Your task to perform on an android device: turn on wifi Image 0: 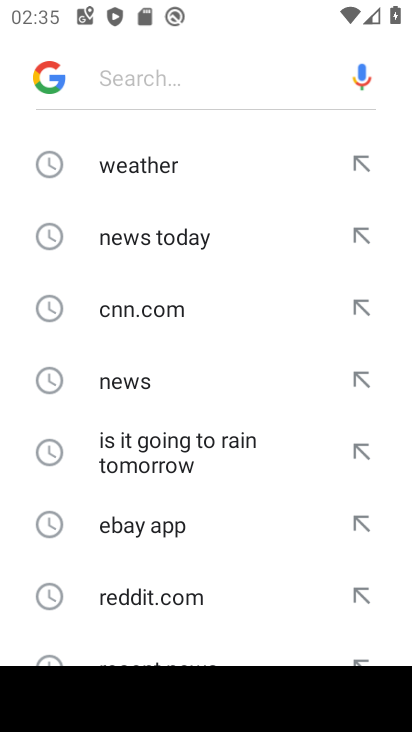
Step 0: press home button
Your task to perform on an android device: turn on wifi Image 1: 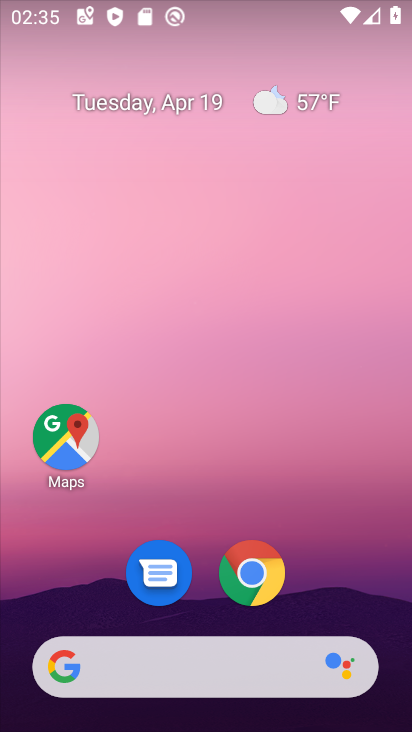
Step 1: drag from (308, 434) to (336, 20)
Your task to perform on an android device: turn on wifi Image 2: 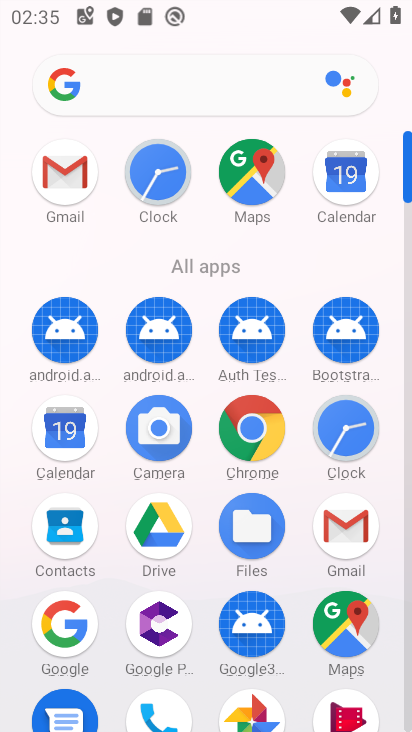
Step 2: drag from (408, 494) to (411, 390)
Your task to perform on an android device: turn on wifi Image 3: 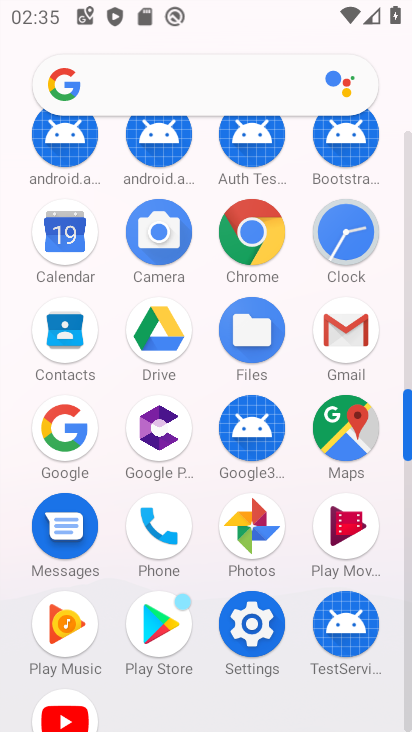
Step 3: click (249, 637)
Your task to perform on an android device: turn on wifi Image 4: 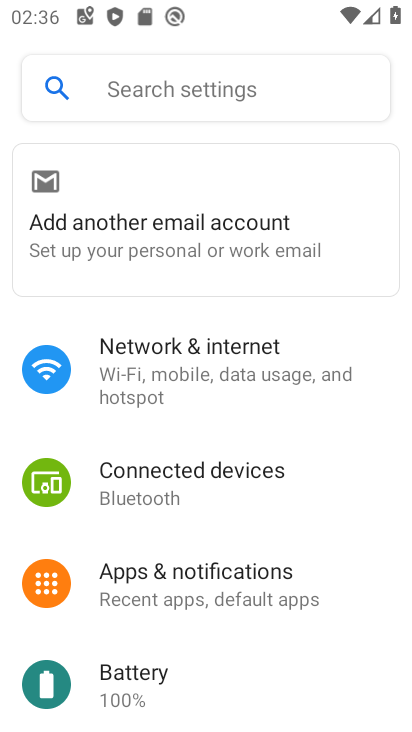
Step 4: click (175, 367)
Your task to perform on an android device: turn on wifi Image 5: 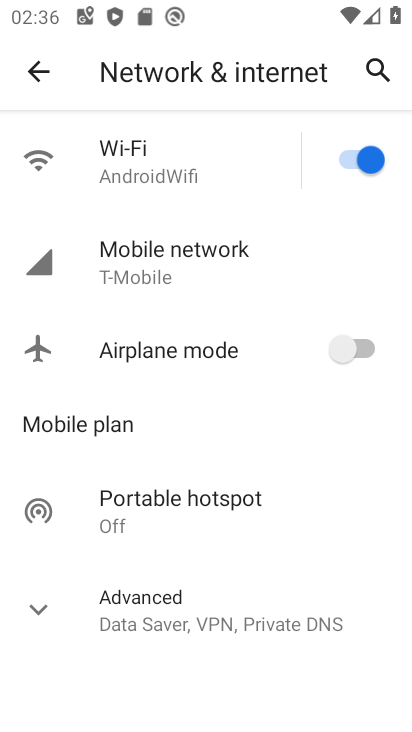
Step 5: task complete